Your task to perform on an android device: Open Google Chrome and click the shortcut for Amazon.com Image 0: 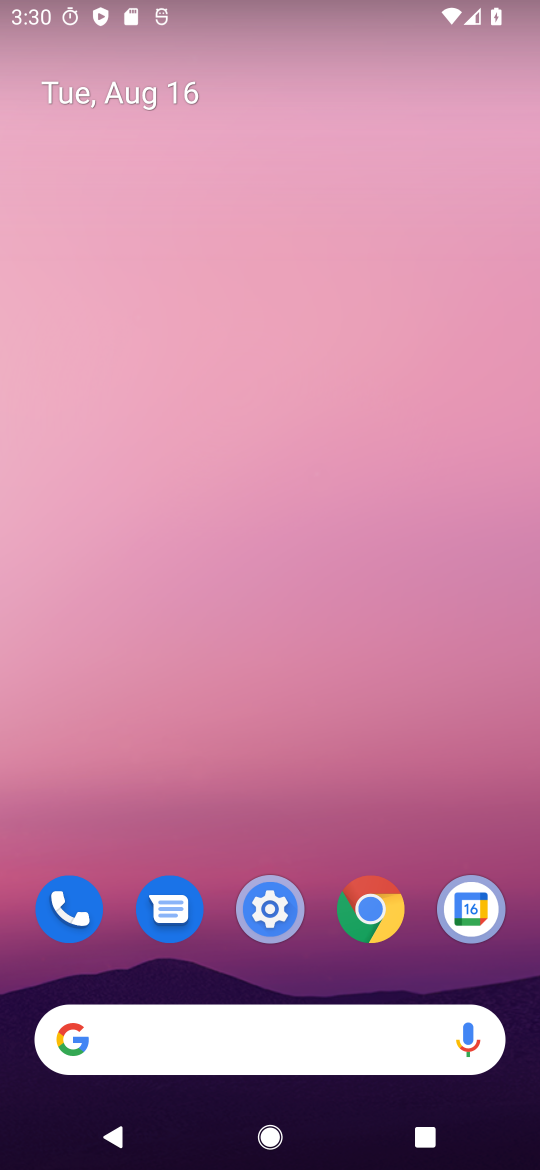
Step 0: click (361, 907)
Your task to perform on an android device: Open Google Chrome and click the shortcut for Amazon.com Image 1: 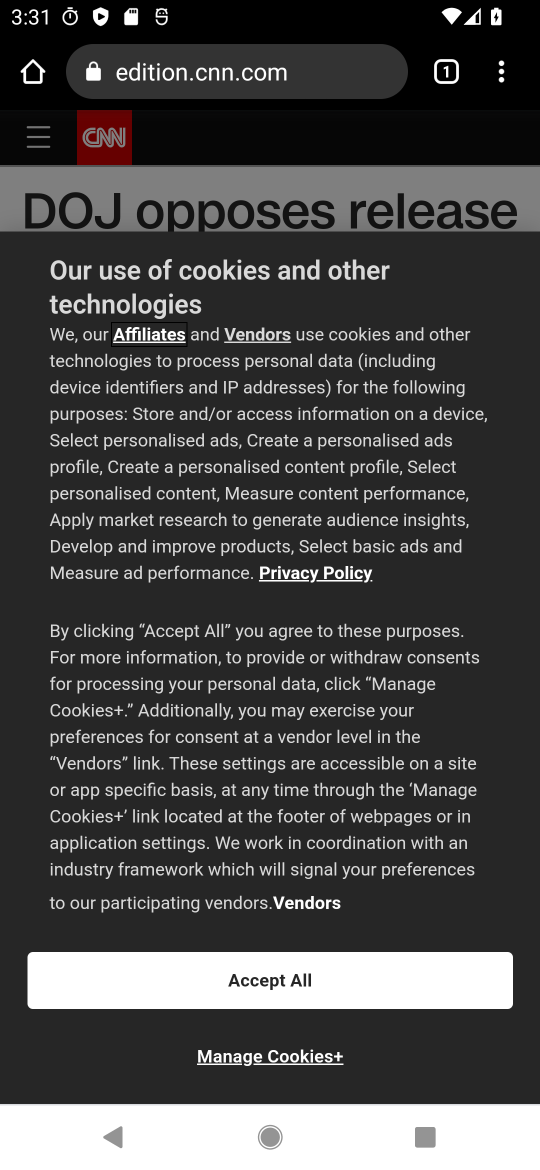
Step 1: press back button
Your task to perform on an android device: Open Google Chrome and click the shortcut for Amazon.com Image 2: 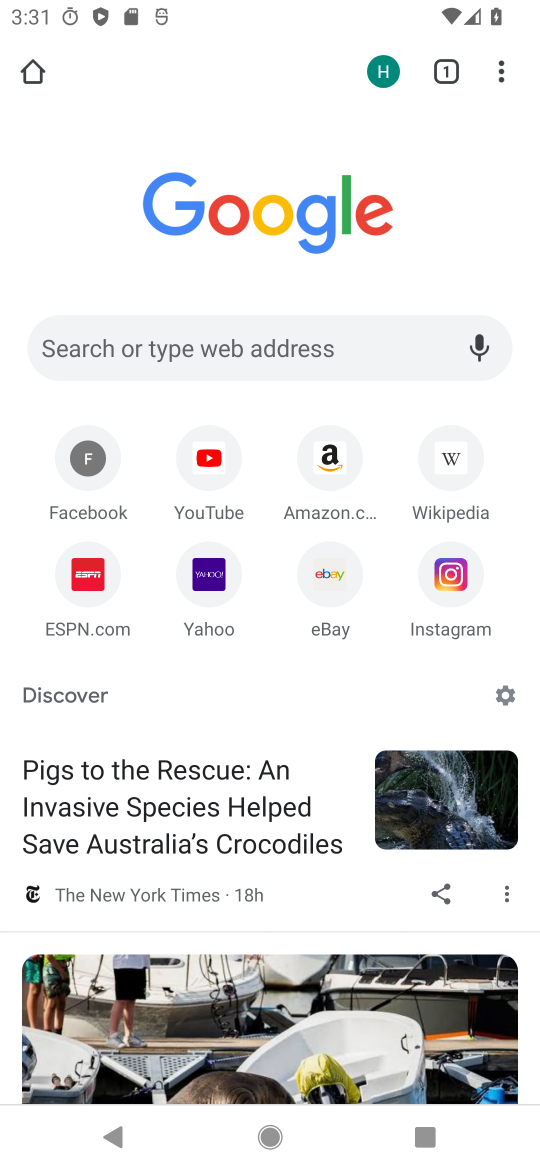
Step 2: click (324, 483)
Your task to perform on an android device: Open Google Chrome and click the shortcut for Amazon.com Image 3: 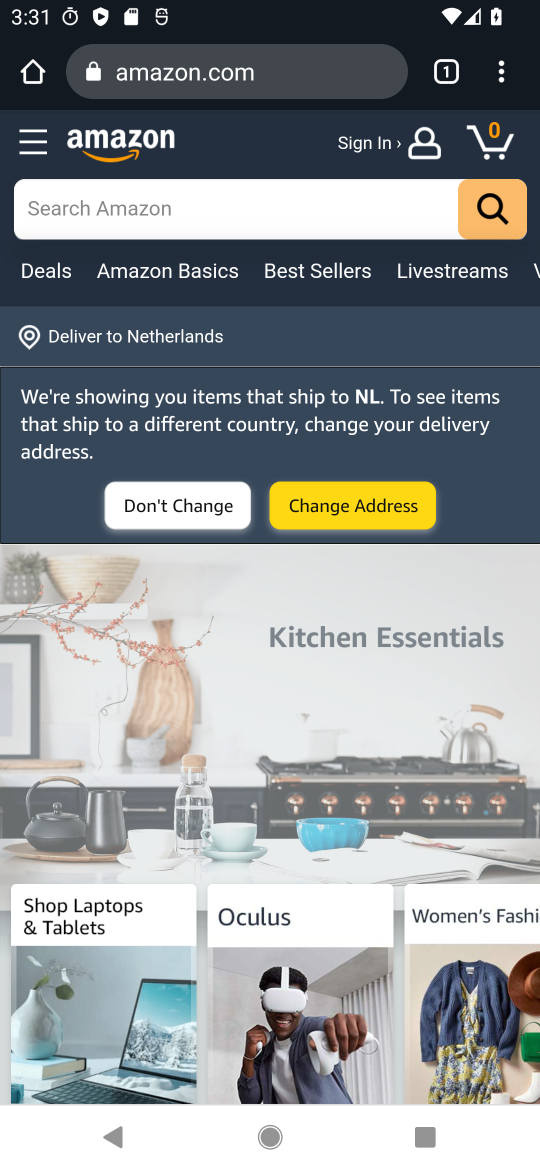
Step 3: task complete